Your task to perform on an android device: open wifi settings Image 0: 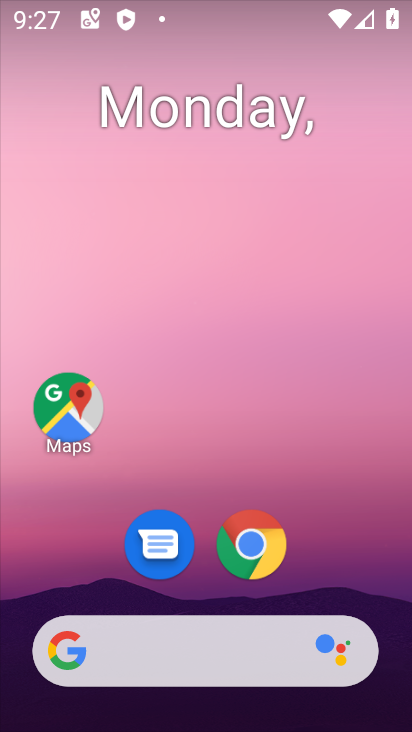
Step 0: drag from (321, 512) to (230, 103)
Your task to perform on an android device: open wifi settings Image 1: 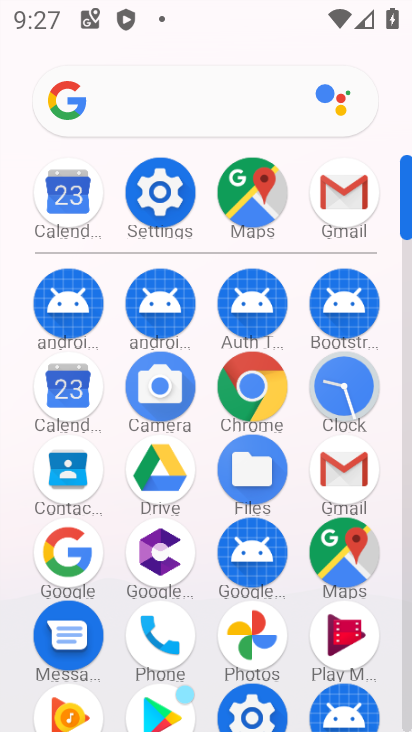
Step 1: click (156, 182)
Your task to perform on an android device: open wifi settings Image 2: 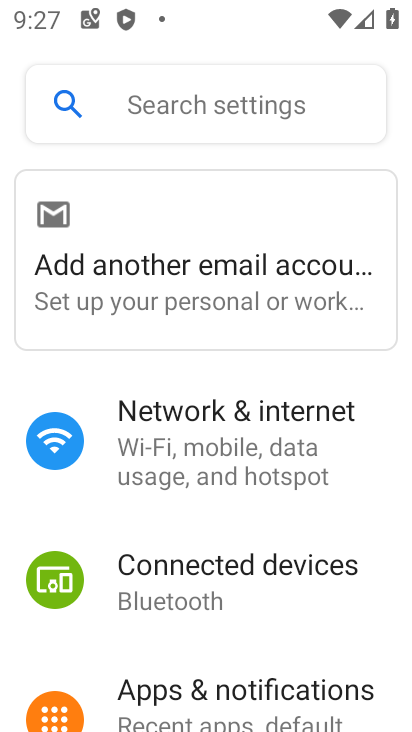
Step 2: click (218, 422)
Your task to perform on an android device: open wifi settings Image 3: 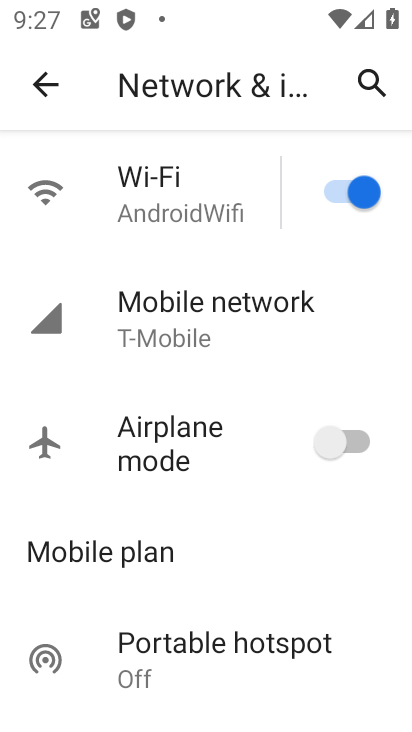
Step 3: click (199, 190)
Your task to perform on an android device: open wifi settings Image 4: 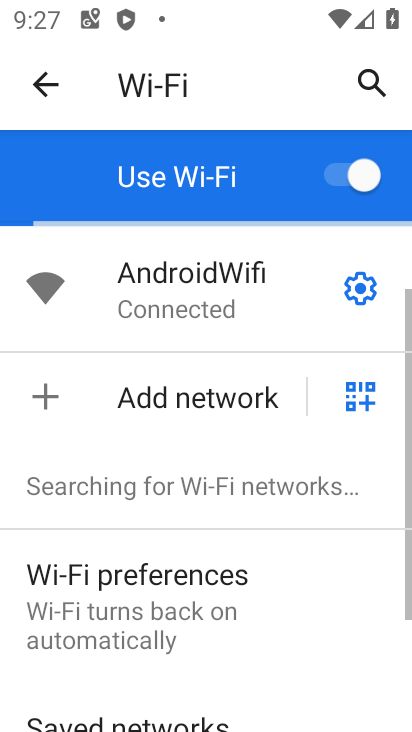
Step 4: task complete